Your task to perform on an android device: check android version Image 0: 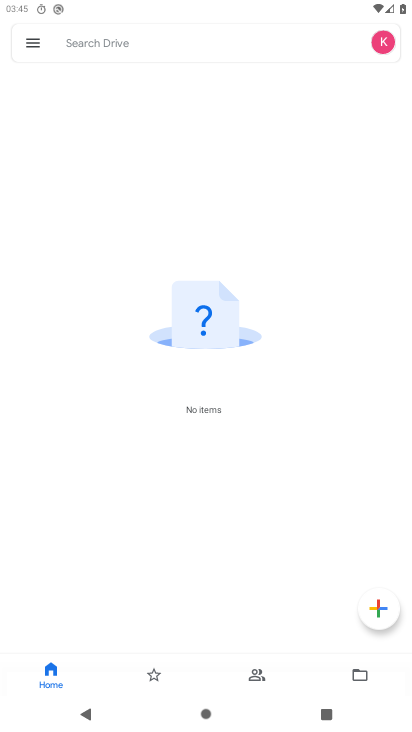
Step 0: press home button
Your task to perform on an android device: check android version Image 1: 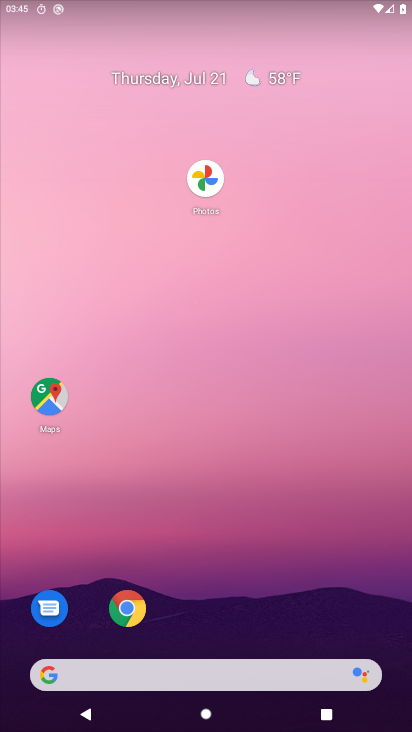
Step 1: drag from (218, 642) to (212, 34)
Your task to perform on an android device: check android version Image 2: 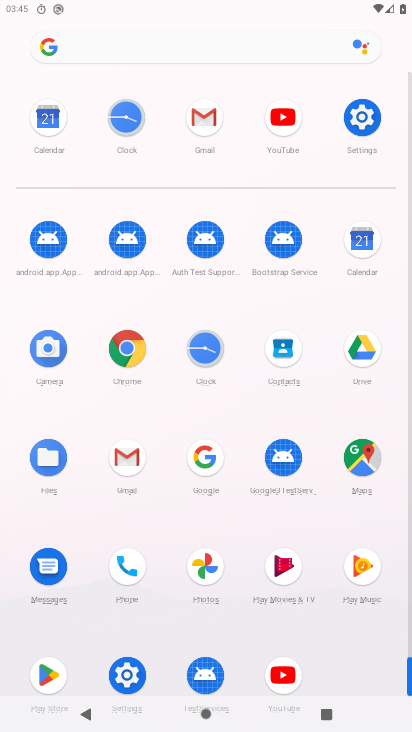
Step 2: click (360, 118)
Your task to perform on an android device: check android version Image 3: 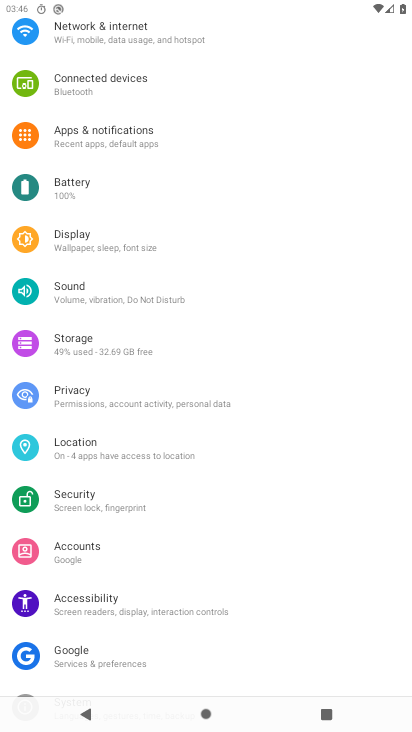
Step 3: drag from (183, 639) to (159, 52)
Your task to perform on an android device: check android version Image 4: 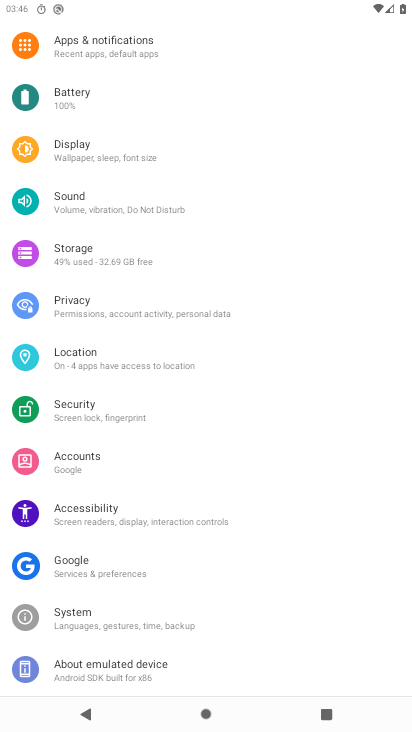
Step 4: click (156, 667)
Your task to perform on an android device: check android version Image 5: 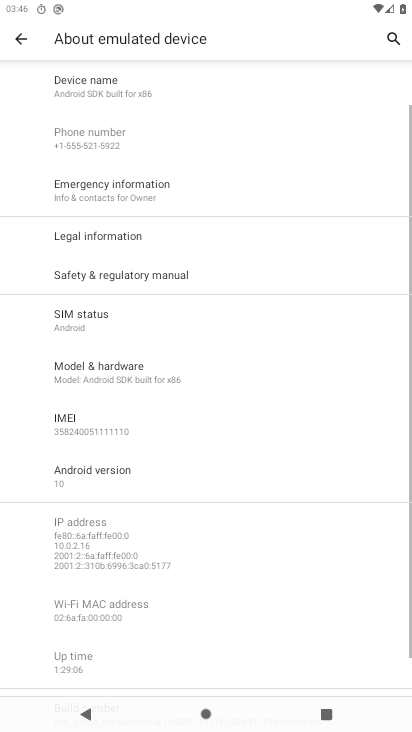
Step 5: click (115, 477)
Your task to perform on an android device: check android version Image 6: 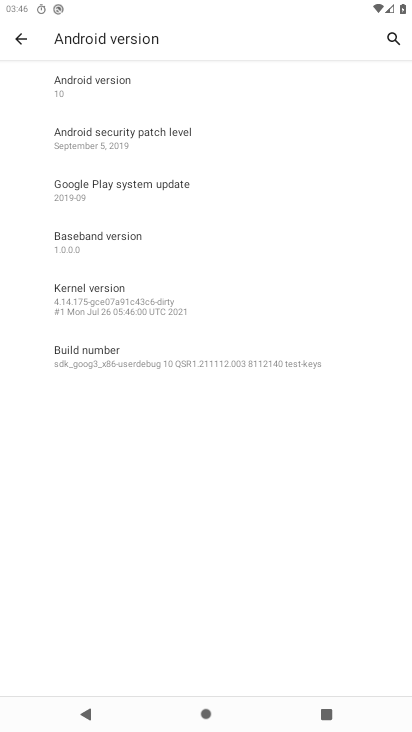
Step 6: task complete